Your task to perform on an android device: Open Chrome and go to settings Image 0: 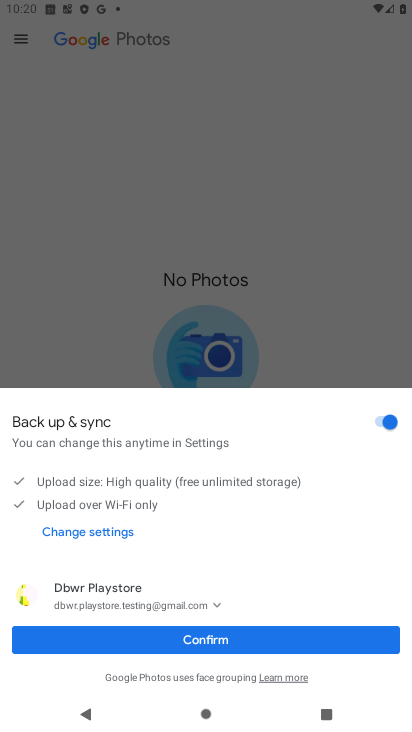
Step 0: press home button
Your task to perform on an android device: Open Chrome and go to settings Image 1: 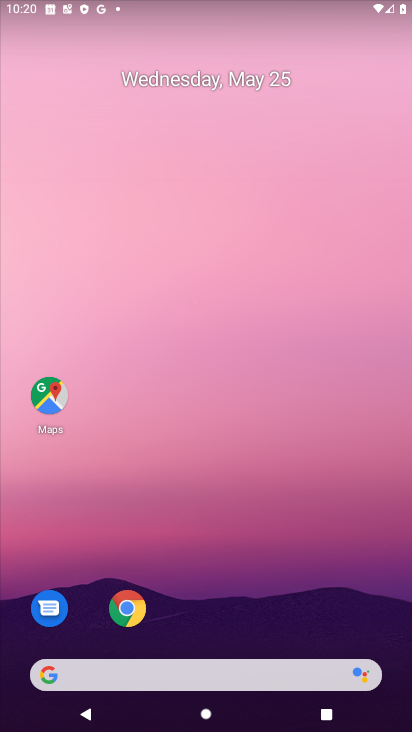
Step 1: click (132, 601)
Your task to perform on an android device: Open Chrome and go to settings Image 2: 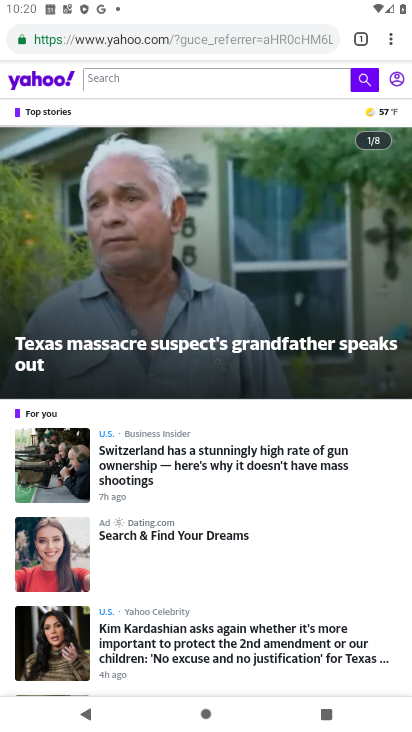
Step 2: click (388, 40)
Your task to perform on an android device: Open Chrome and go to settings Image 3: 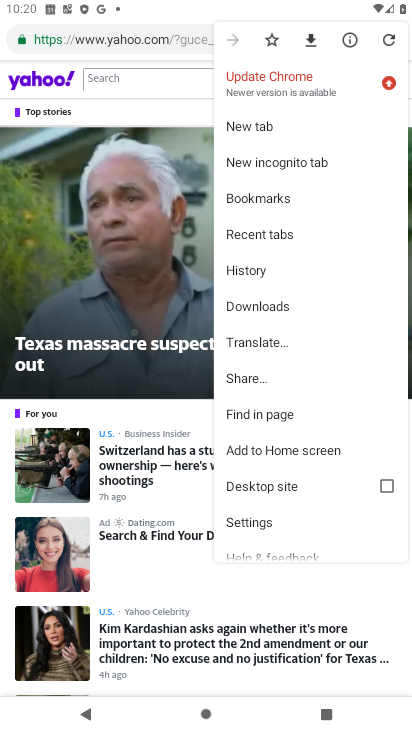
Step 3: click (265, 520)
Your task to perform on an android device: Open Chrome and go to settings Image 4: 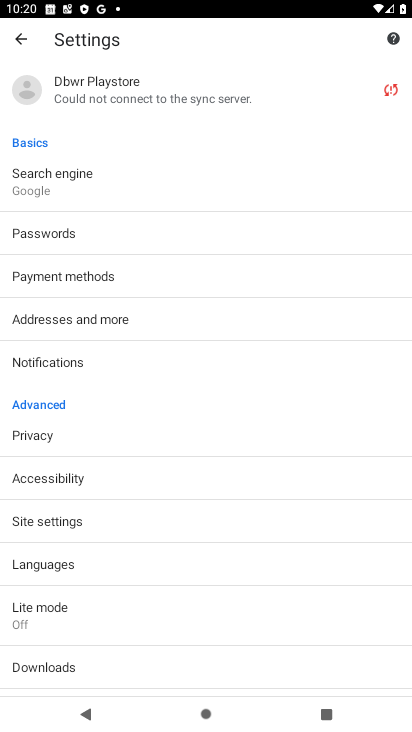
Step 4: task complete